Your task to perform on an android device: turn notification dots on Image 0: 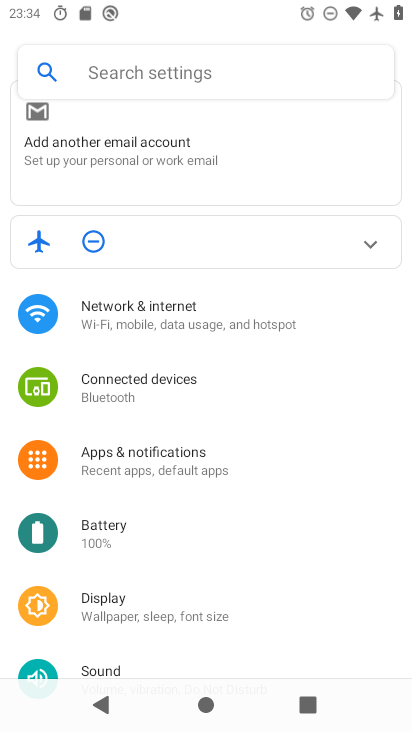
Step 0: drag from (222, 637) to (63, 22)
Your task to perform on an android device: turn notification dots on Image 1: 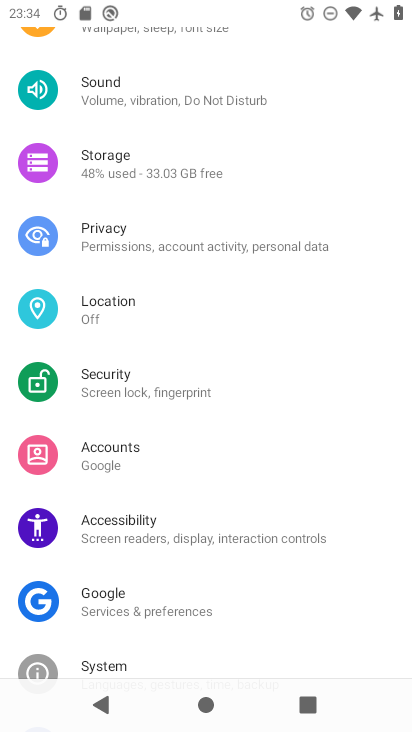
Step 1: drag from (181, 152) to (197, 726)
Your task to perform on an android device: turn notification dots on Image 2: 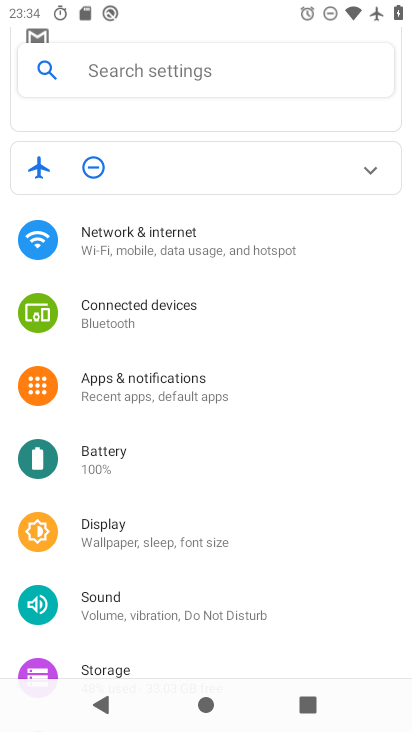
Step 2: click (237, 394)
Your task to perform on an android device: turn notification dots on Image 3: 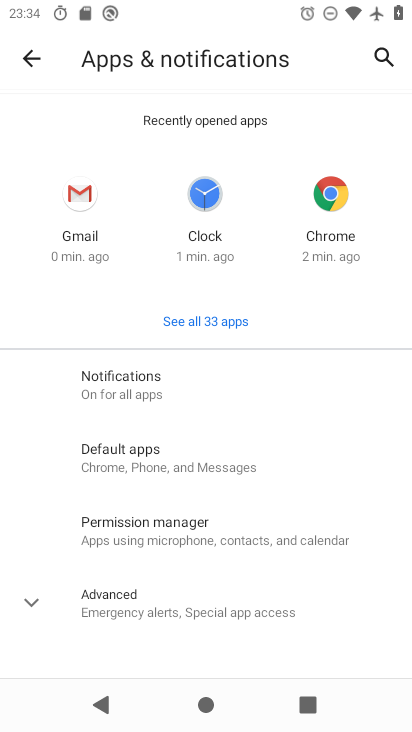
Step 3: click (208, 397)
Your task to perform on an android device: turn notification dots on Image 4: 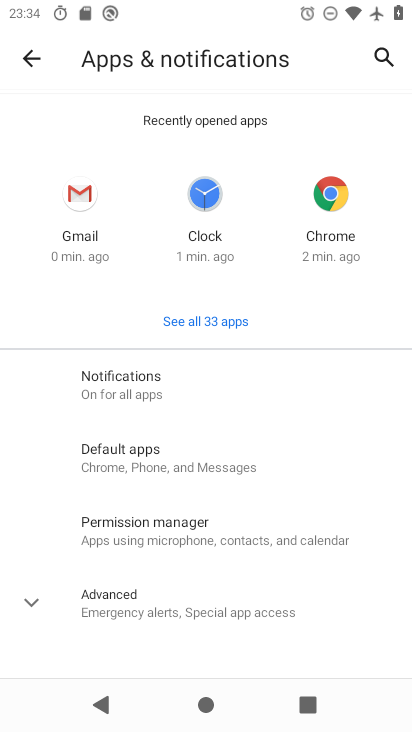
Step 4: click (208, 397)
Your task to perform on an android device: turn notification dots on Image 5: 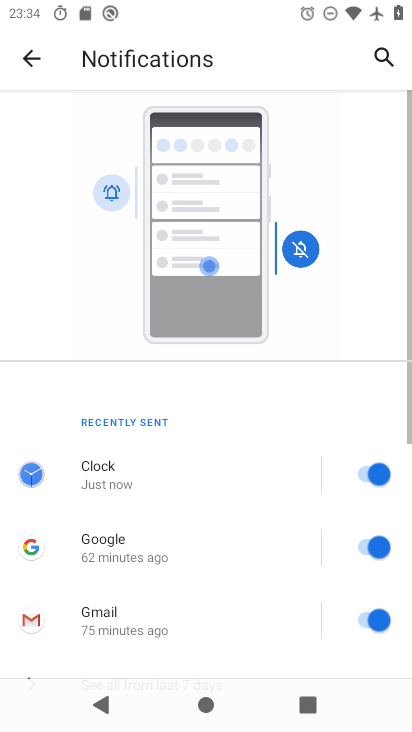
Step 5: drag from (223, 516) to (262, 93)
Your task to perform on an android device: turn notification dots on Image 6: 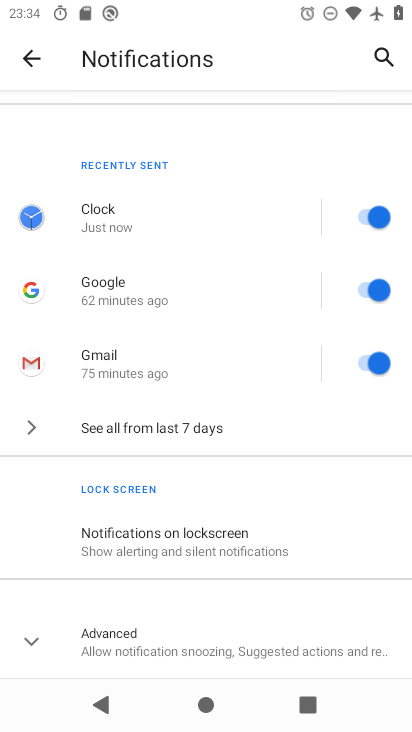
Step 6: click (141, 646)
Your task to perform on an android device: turn notification dots on Image 7: 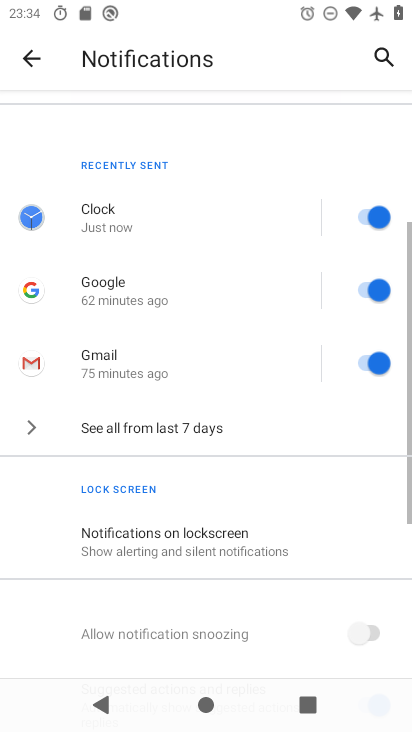
Step 7: task complete